Your task to perform on an android device: Go to battery settings Image 0: 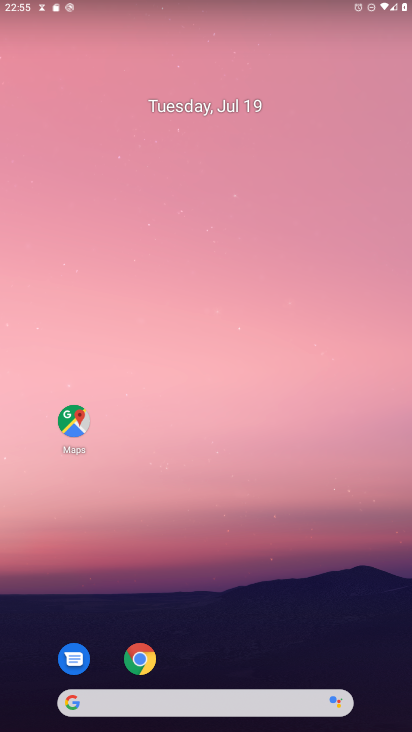
Step 0: click (195, 280)
Your task to perform on an android device: Go to battery settings Image 1: 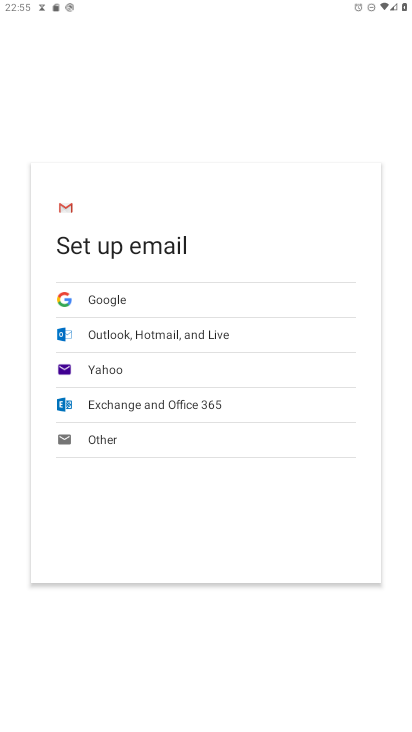
Step 1: press home button
Your task to perform on an android device: Go to battery settings Image 2: 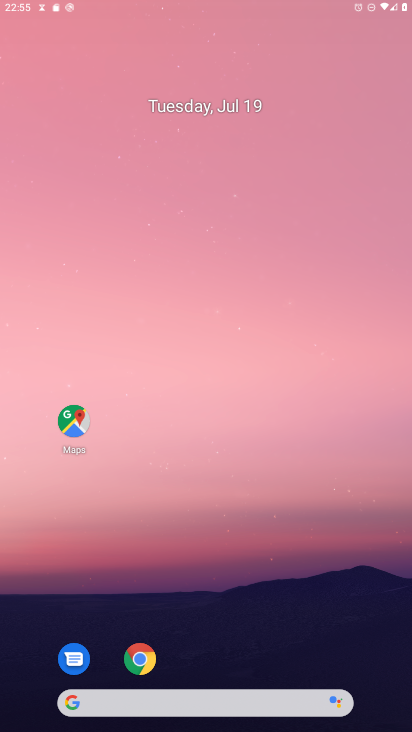
Step 2: drag from (212, 689) to (198, 293)
Your task to perform on an android device: Go to battery settings Image 3: 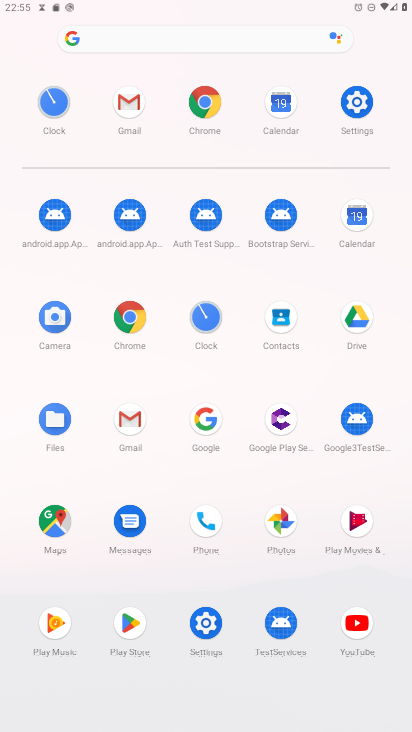
Step 3: click (352, 103)
Your task to perform on an android device: Go to battery settings Image 4: 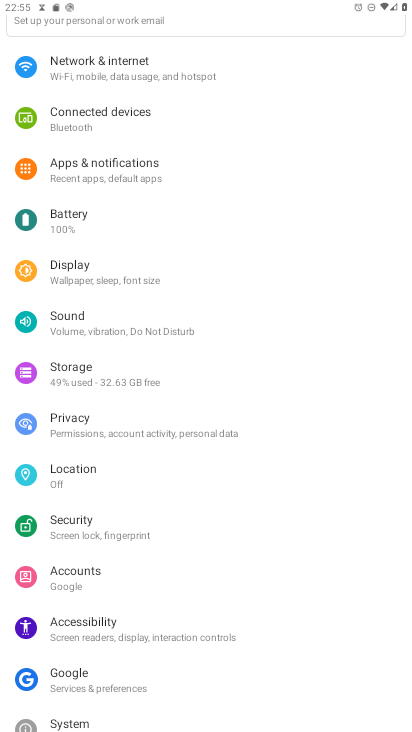
Step 4: click (83, 228)
Your task to perform on an android device: Go to battery settings Image 5: 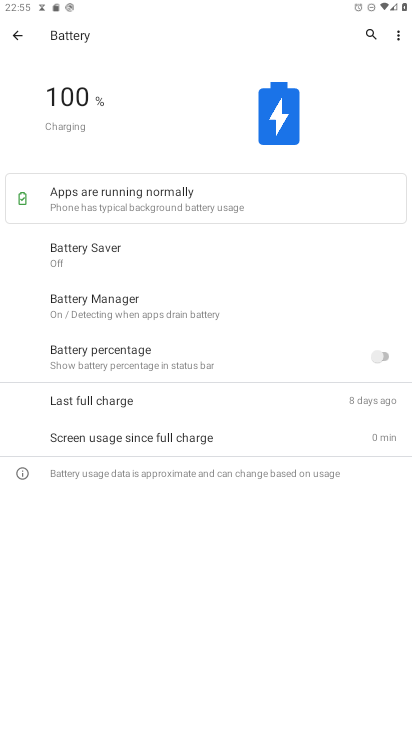
Step 5: task complete